Your task to perform on an android device: toggle wifi Image 0: 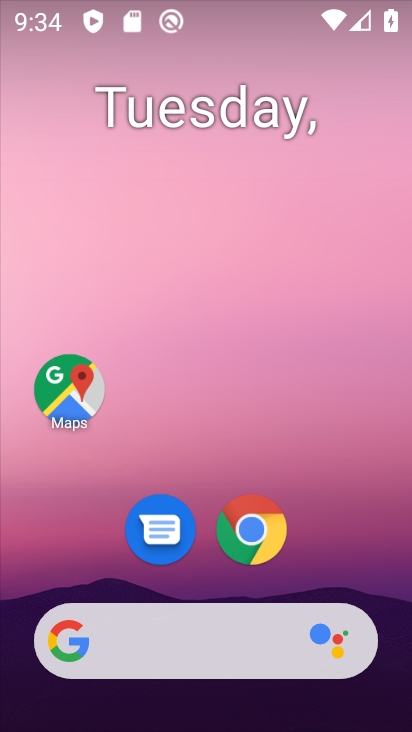
Step 0: drag from (307, 569) to (267, 0)
Your task to perform on an android device: toggle wifi Image 1: 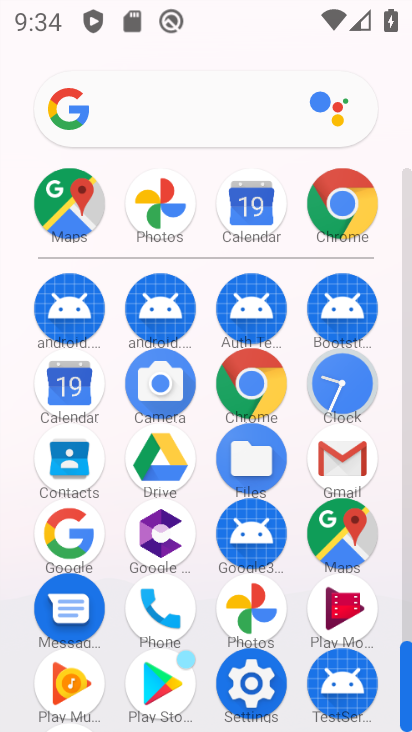
Step 1: click (248, 680)
Your task to perform on an android device: toggle wifi Image 2: 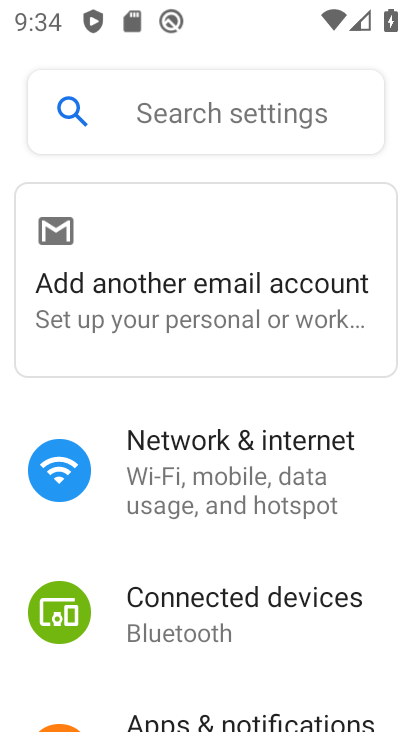
Step 2: click (287, 446)
Your task to perform on an android device: toggle wifi Image 3: 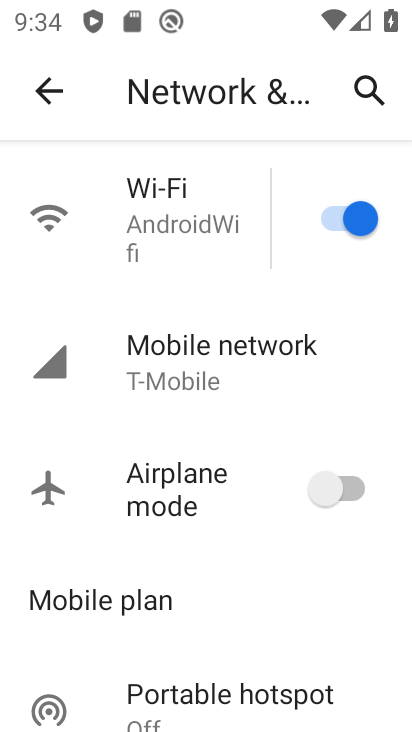
Step 3: click (336, 213)
Your task to perform on an android device: toggle wifi Image 4: 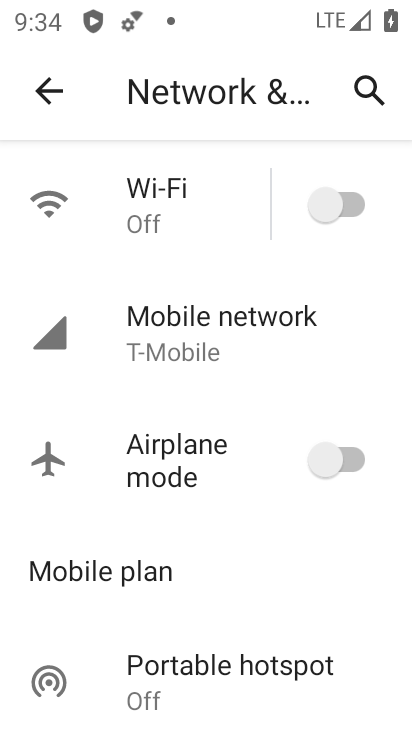
Step 4: task complete